Your task to perform on an android device: toggle sleep mode Image 0: 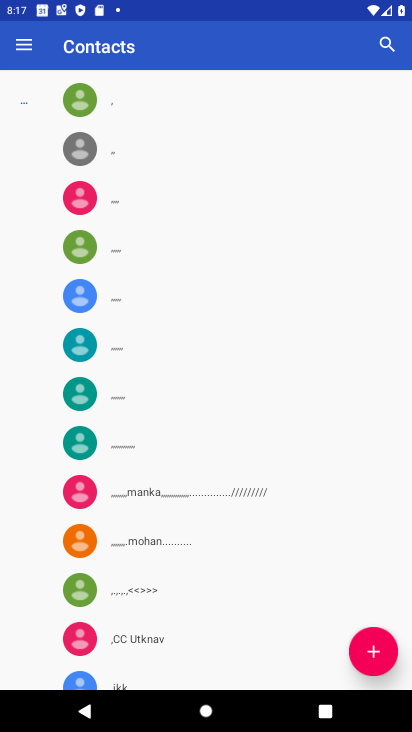
Step 0: press home button
Your task to perform on an android device: toggle sleep mode Image 1: 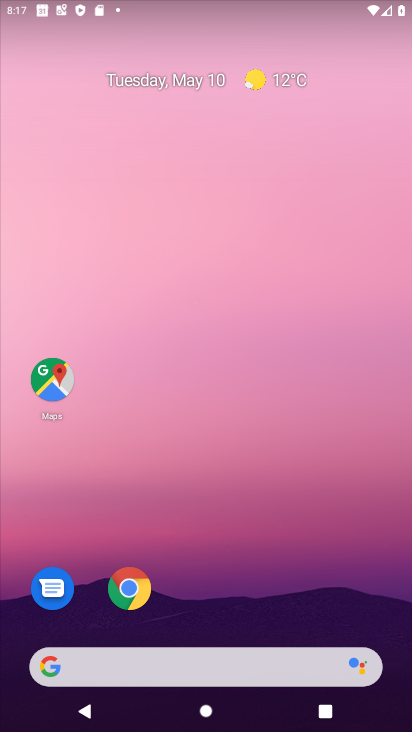
Step 1: drag from (177, 10) to (262, 729)
Your task to perform on an android device: toggle sleep mode Image 2: 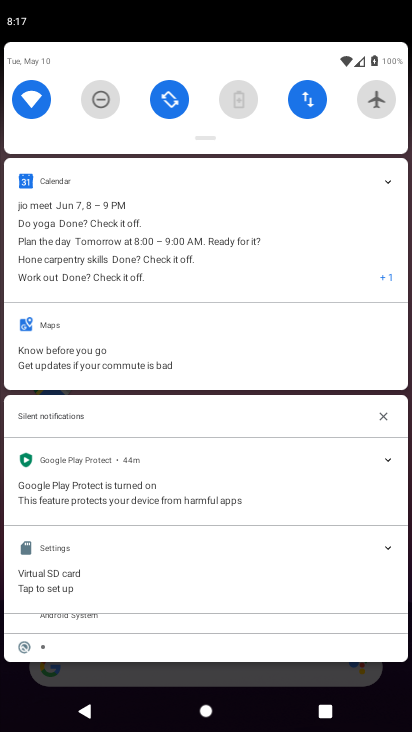
Step 2: drag from (226, 70) to (236, 492)
Your task to perform on an android device: toggle sleep mode Image 3: 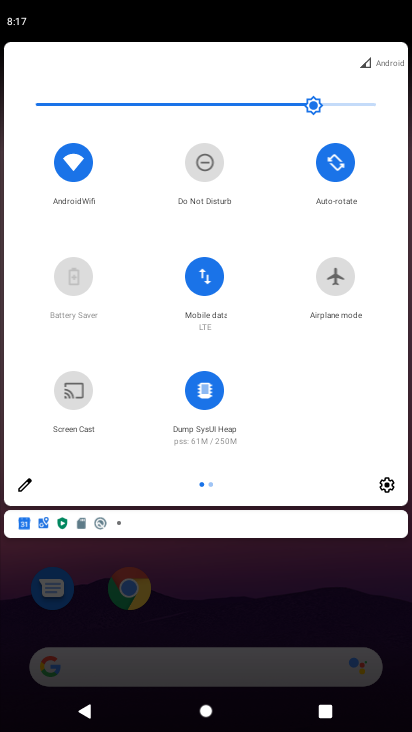
Step 3: click (391, 490)
Your task to perform on an android device: toggle sleep mode Image 4: 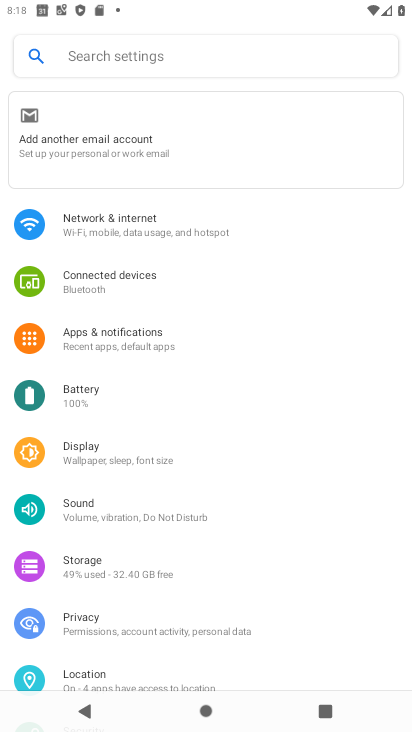
Step 4: task complete